Your task to perform on an android device: set an alarm Image 0: 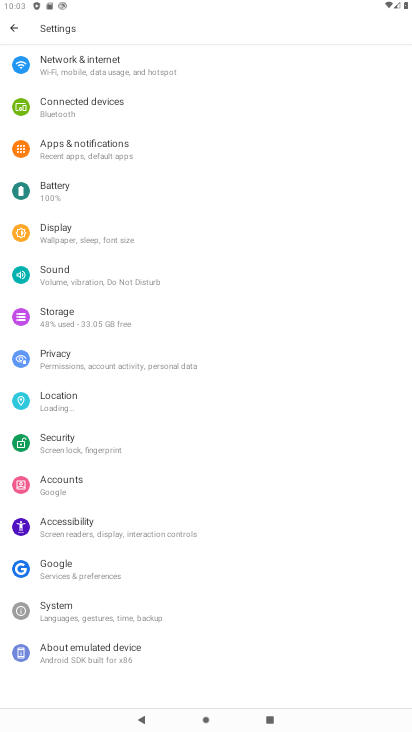
Step 0: press home button
Your task to perform on an android device: set an alarm Image 1: 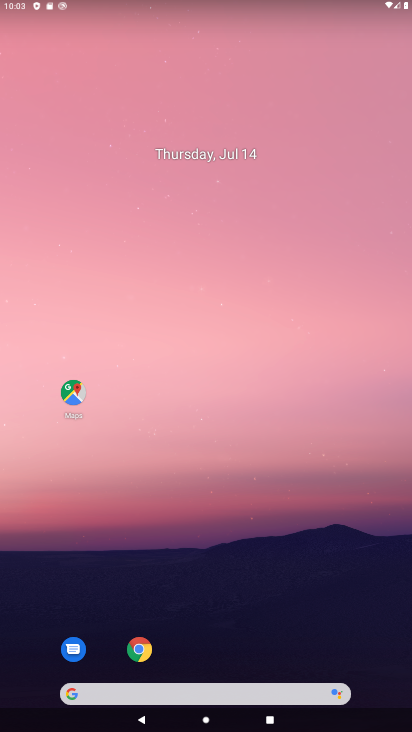
Step 1: drag from (325, 603) to (227, 88)
Your task to perform on an android device: set an alarm Image 2: 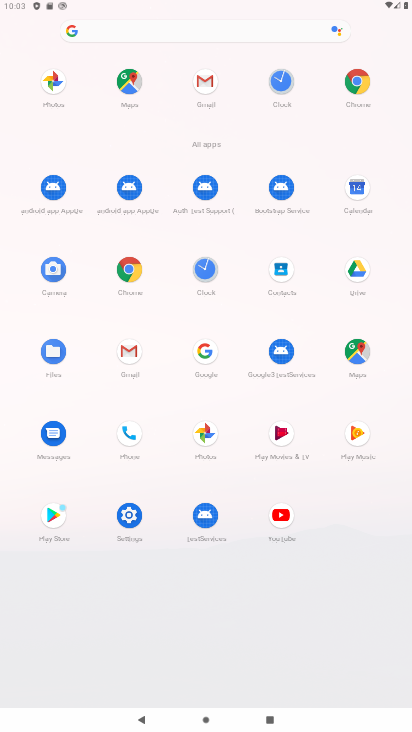
Step 2: click (276, 87)
Your task to perform on an android device: set an alarm Image 3: 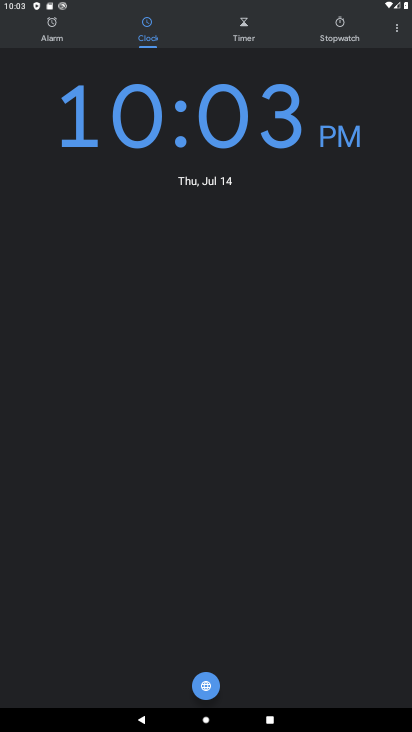
Step 3: click (58, 30)
Your task to perform on an android device: set an alarm Image 4: 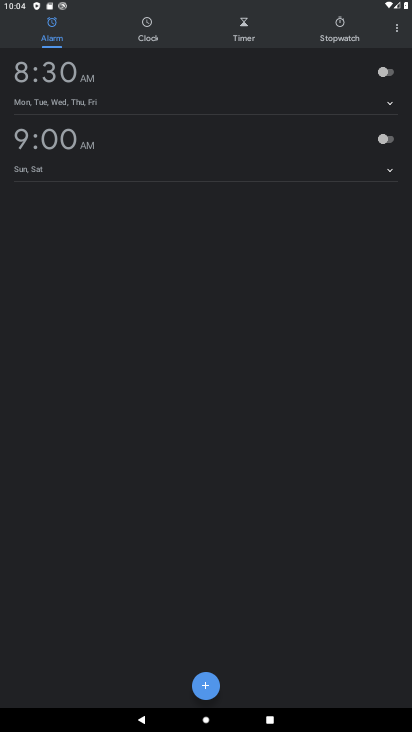
Step 4: click (201, 688)
Your task to perform on an android device: set an alarm Image 5: 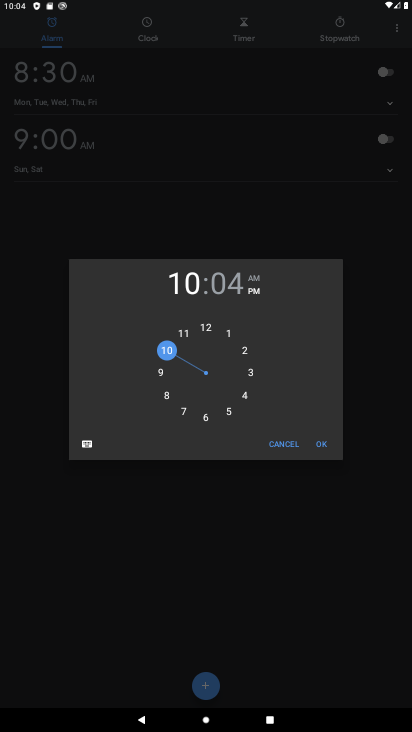
Step 5: click (327, 445)
Your task to perform on an android device: set an alarm Image 6: 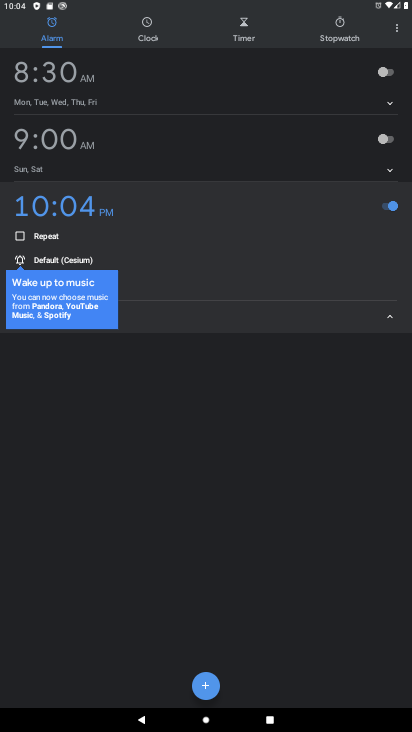
Step 6: task complete